Your task to perform on an android device: choose inbox layout in the gmail app Image 0: 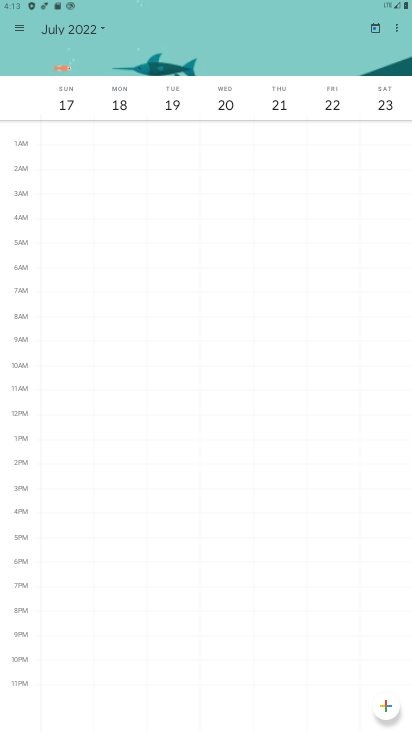
Step 0: press home button
Your task to perform on an android device: choose inbox layout in the gmail app Image 1: 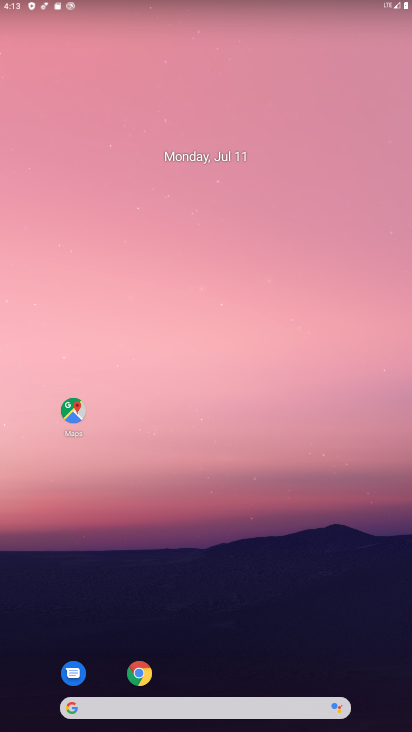
Step 1: drag from (296, 501) to (284, 75)
Your task to perform on an android device: choose inbox layout in the gmail app Image 2: 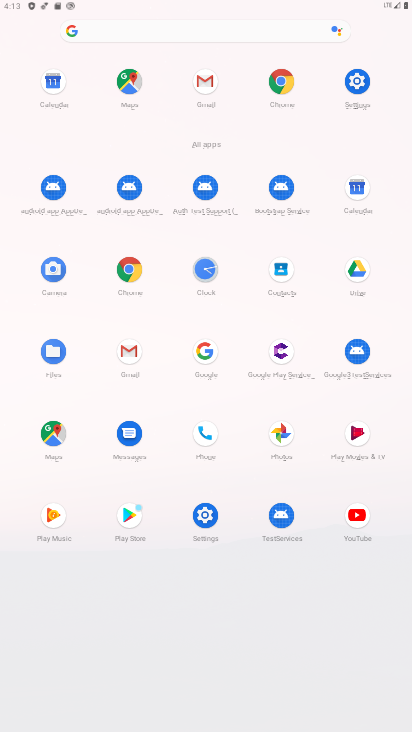
Step 2: click (205, 79)
Your task to perform on an android device: choose inbox layout in the gmail app Image 3: 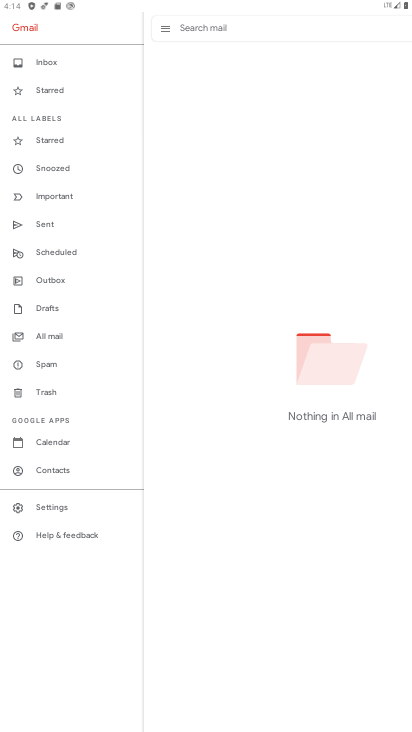
Step 3: click (52, 503)
Your task to perform on an android device: choose inbox layout in the gmail app Image 4: 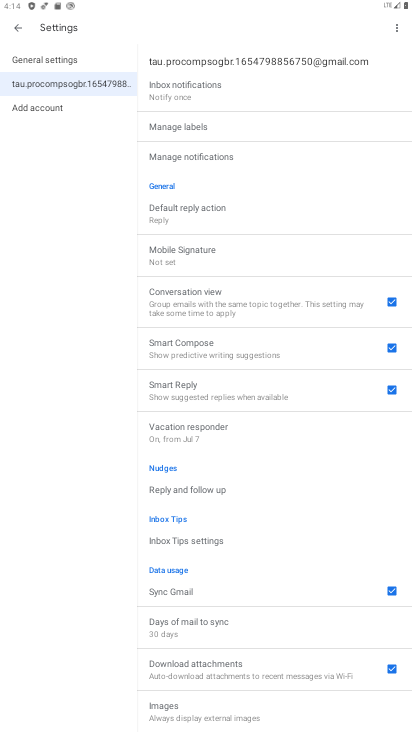
Step 4: drag from (218, 86) to (259, 463)
Your task to perform on an android device: choose inbox layout in the gmail app Image 5: 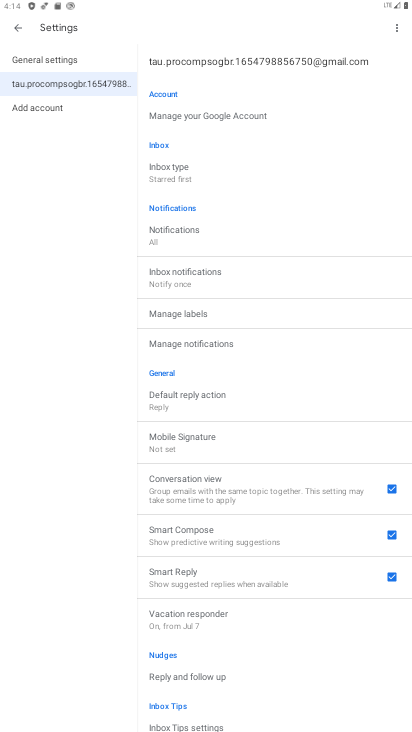
Step 5: click (181, 171)
Your task to perform on an android device: choose inbox layout in the gmail app Image 6: 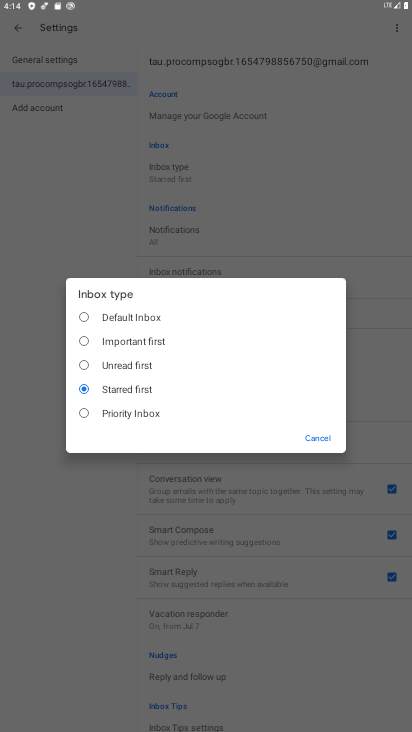
Step 6: task complete